Your task to perform on an android device: turn off wifi Image 0: 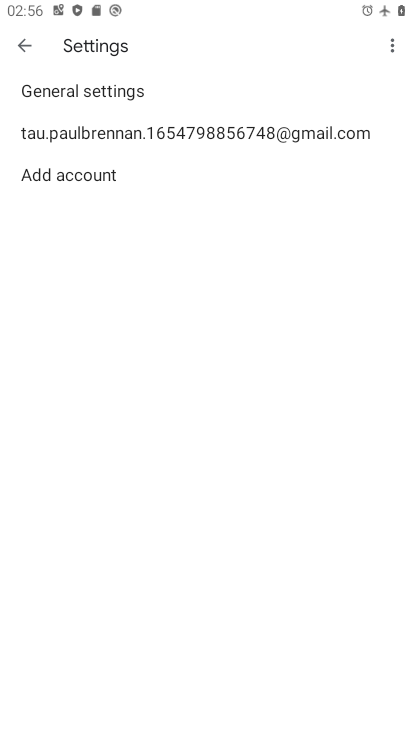
Step 0: press home button
Your task to perform on an android device: turn off wifi Image 1: 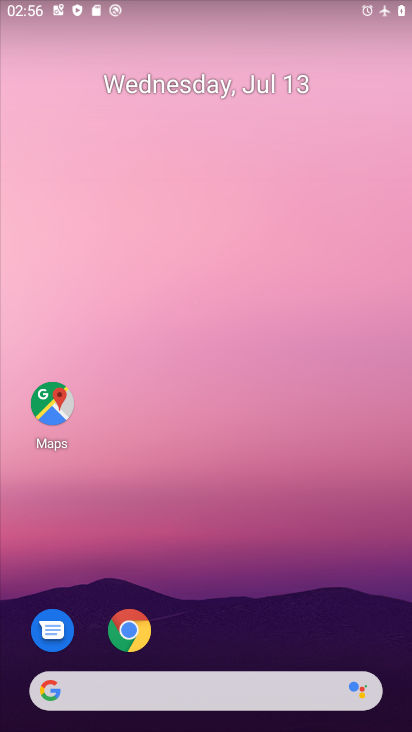
Step 1: drag from (210, 639) to (194, 377)
Your task to perform on an android device: turn off wifi Image 2: 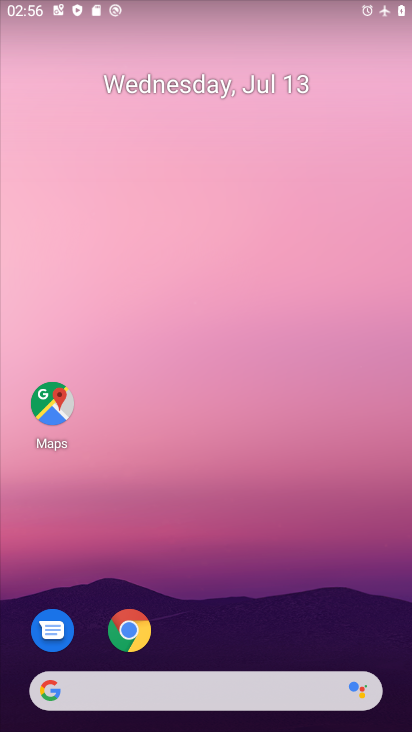
Step 2: drag from (196, 651) to (191, 97)
Your task to perform on an android device: turn off wifi Image 3: 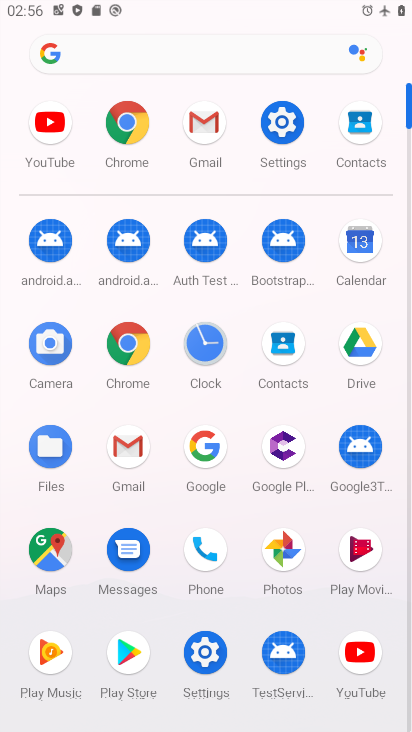
Step 3: click (263, 128)
Your task to perform on an android device: turn off wifi Image 4: 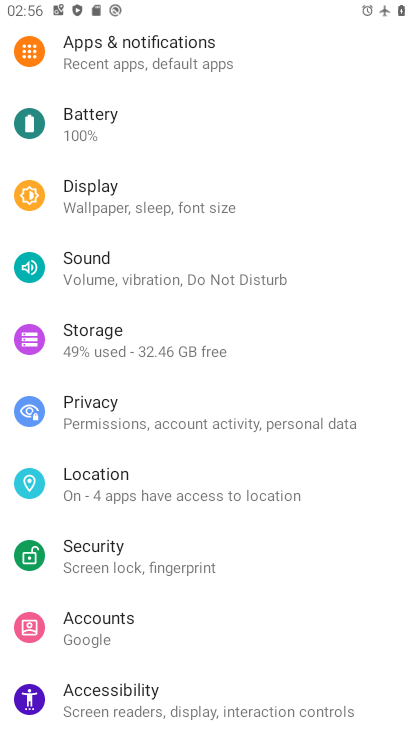
Step 4: drag from (170, 119) to (199, 411)
Your task to perform on an android device: turn off wifi Image 5: 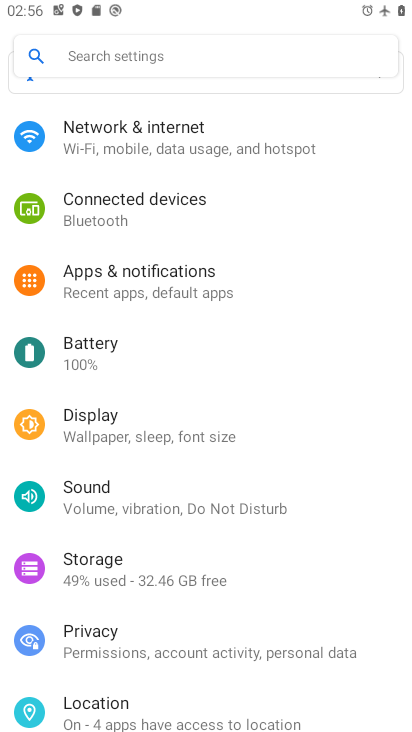
Step 5: click (181, 159)
Your task to perform on an android device: turn off wifi Image 6: 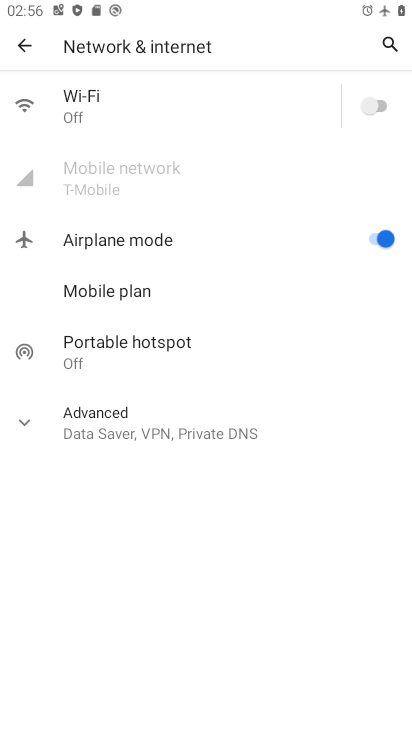
Step 6: task complete